Your task to perform on an android device: Open Chrome and go to settings Image 0: 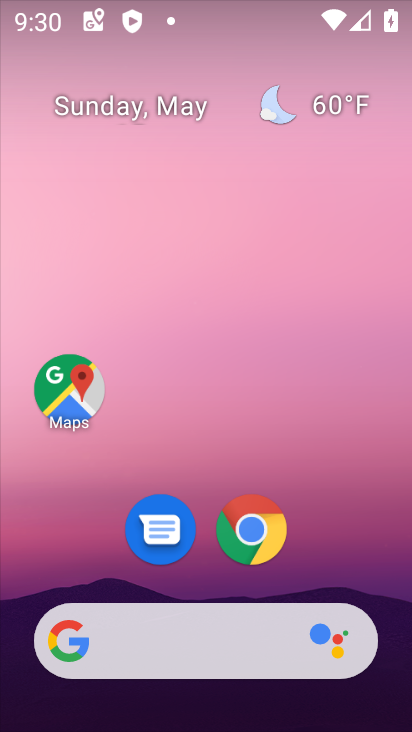
Step 0: drag from (359, 564) to (361, 108)
Your task to perform on an android device: Open Chrome and go to settings Image 1: 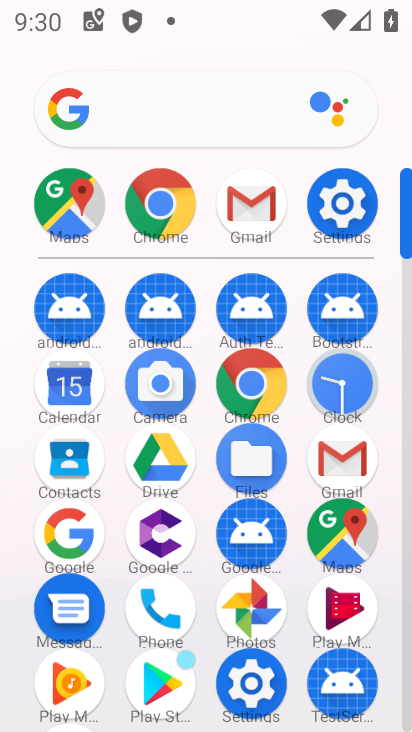
Step 1: click (273, 390)
Your task to perform on an android device: Open Chrome and go to settings Image 2: 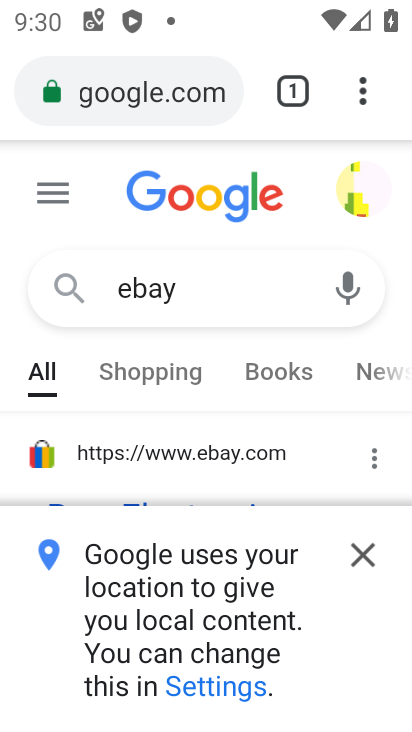
Step 2: click (361, 87)
Your task to perform on an android device: Open Chrome and go to settings Image 3: 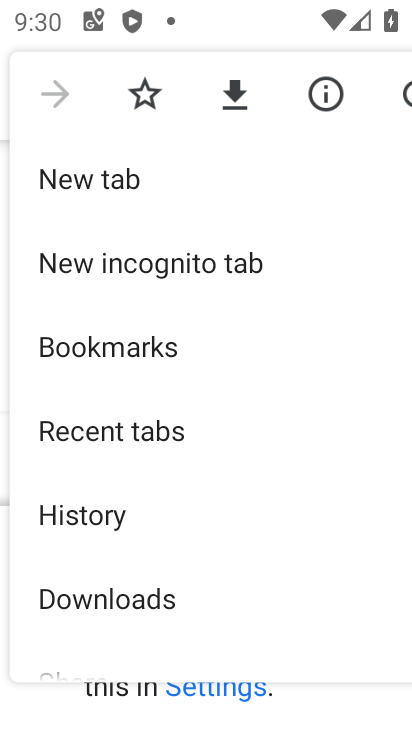
Step 3: drag from (320, 579) to (310, 303)
Your task to perform on an android device: Open Chrome and go to settings Image 4: 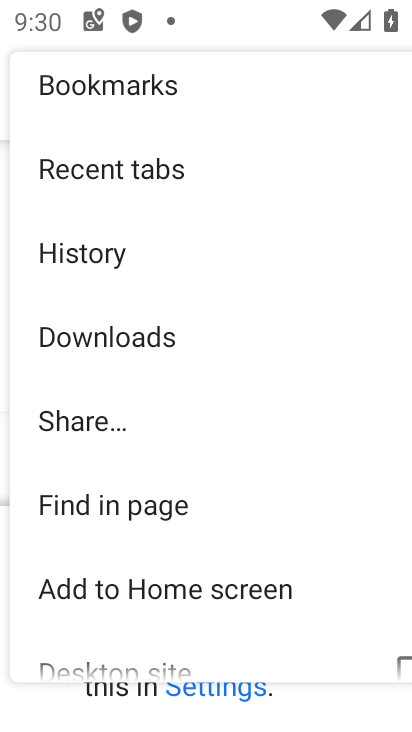
Step 4: drag from (303, 634) to (286, 445)
Your task to perform on an android device: Open Chrome and go to settings Image 5: 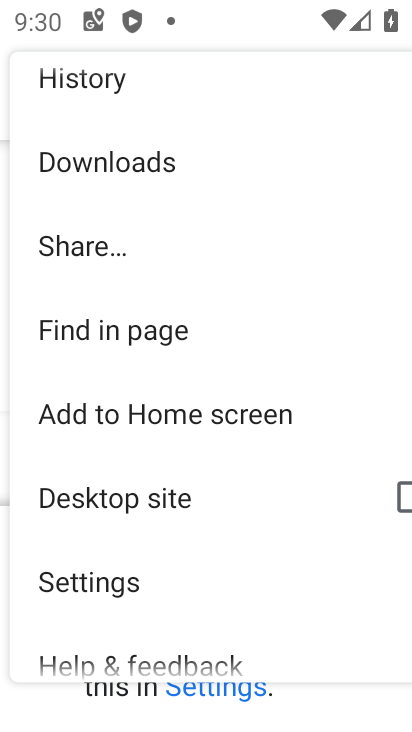
Step 5: drag from (249, 596) to (270, 416)
Your task to perform on an android device: Open Chrome and go to settings Image 6: 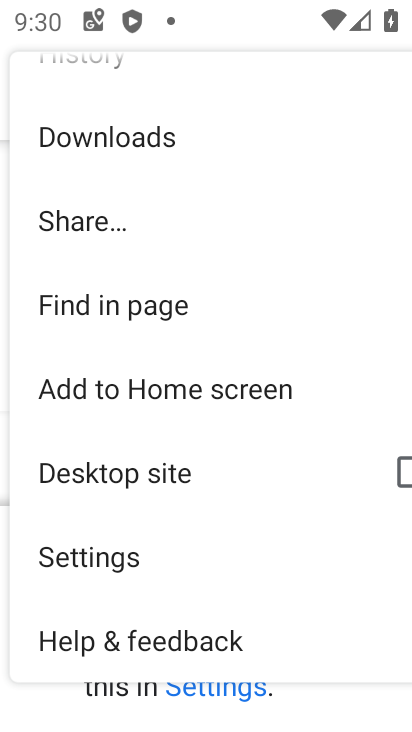
Step 6: click (111, 561)
Your task to perform on an android device: Open Chrome and go to settings Image 7: 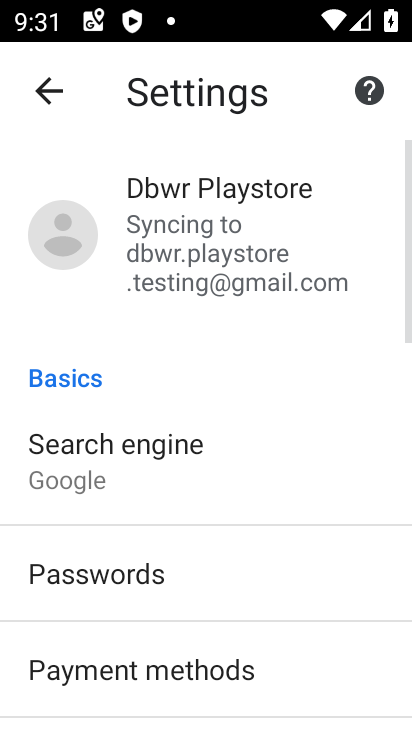
Step 7: task complete